Your task to perform on an android device: Open calendar and show me the first week of next month Image 0: 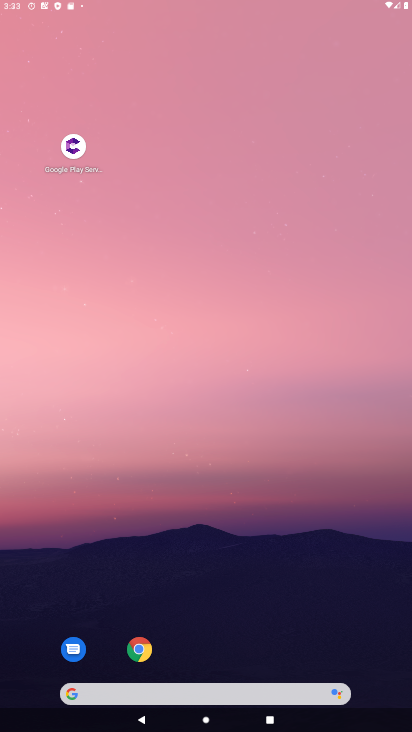
Step 0: click (388, 273)
Your task to perform on an android device: Open calendar and show me the first week of next month Image 1: 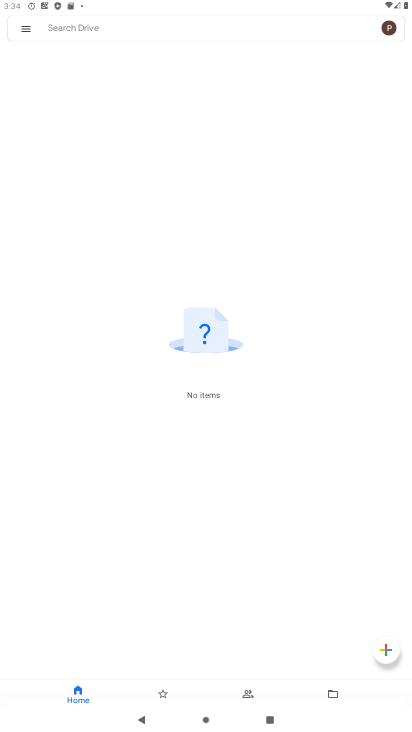
Step 1: press home button
Your task to perform on an android device: Open calendar and show me the first week of next month Image 2: 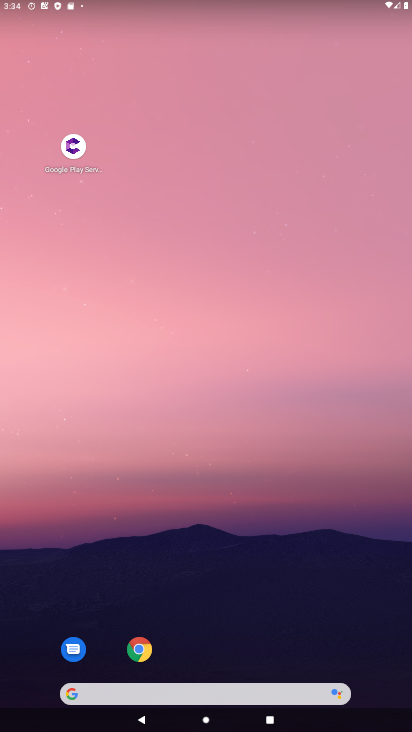
Step 2: drag from (228, 521) to (388, 6)
Your task to perform on an android device: Open calendar and show me the first week of next month Image 3: 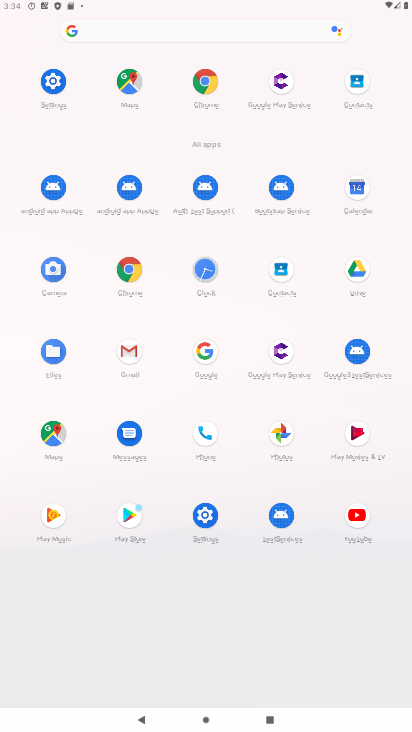
Step 3: click (362, 189)
Your task to perform on an android device: Open calendar and show me the first week of next month Image 4: 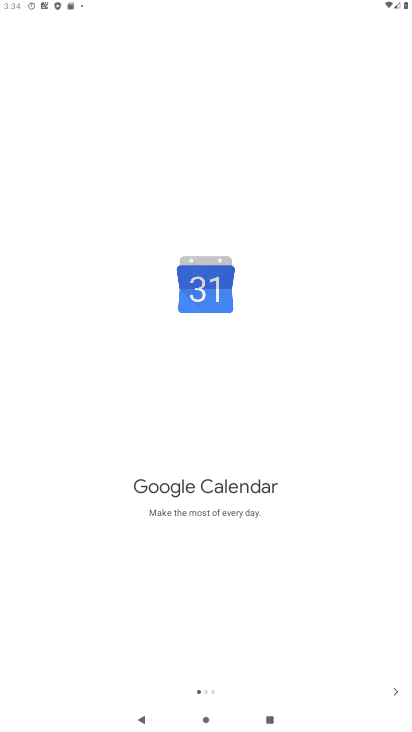
Step 4: click (394, 687)
Your task to perform on an android device: Open calendar and show me the first week of next month Image 5: 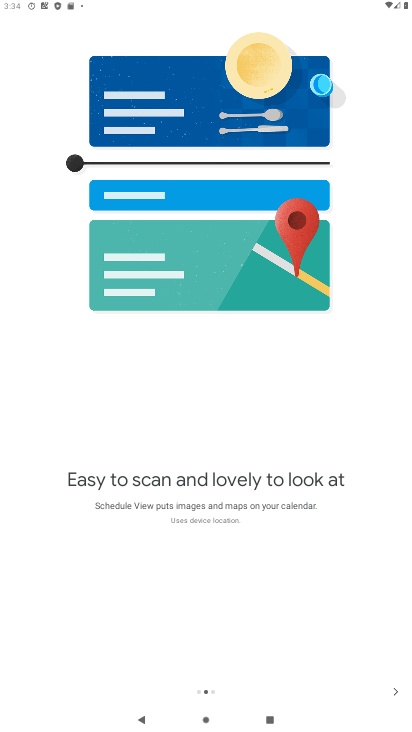
Step 5: click (391, 680)
Your task to perform on an android device: Open calendar and show me the first week of next month Image 6: 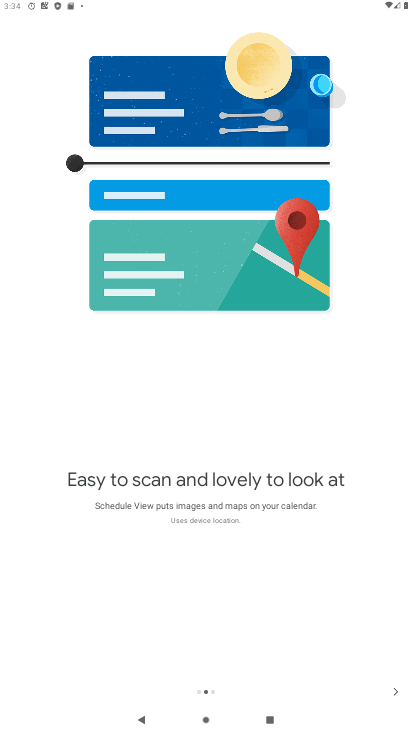
Step 6: click (387, 682)
Your task to perform on an android device: Open calendar and show me the first week of next month Image 7: 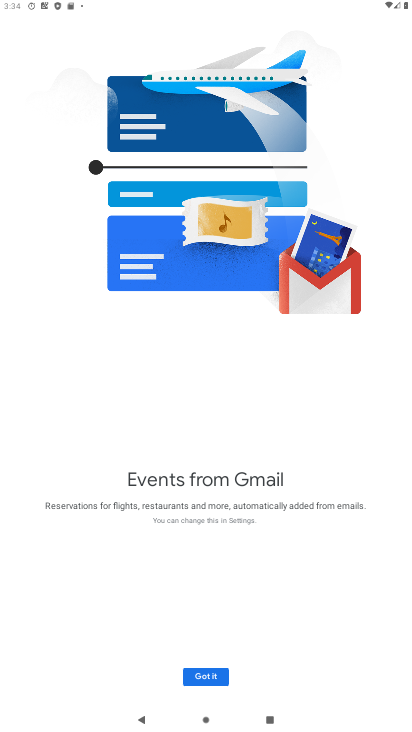
Step 7: click (219, 673)
Your task to perform on an android device: Open calendar and show me the first week of next month Image 8: 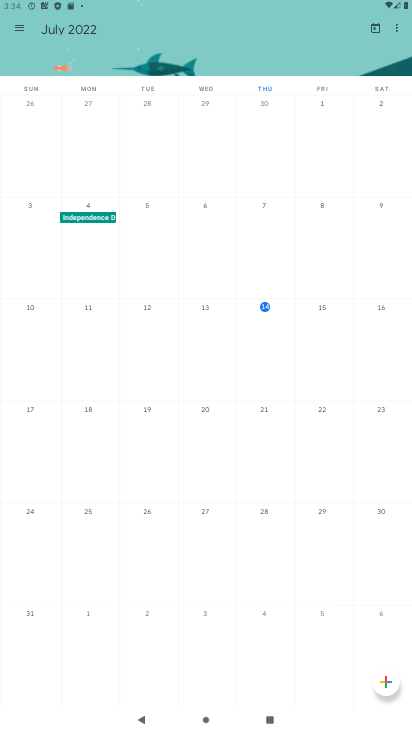
Step 8: drag from (336, 222) to (1, 44)
Your task to perform on an android device: Open calendar and show me the first week of next month Image 9: 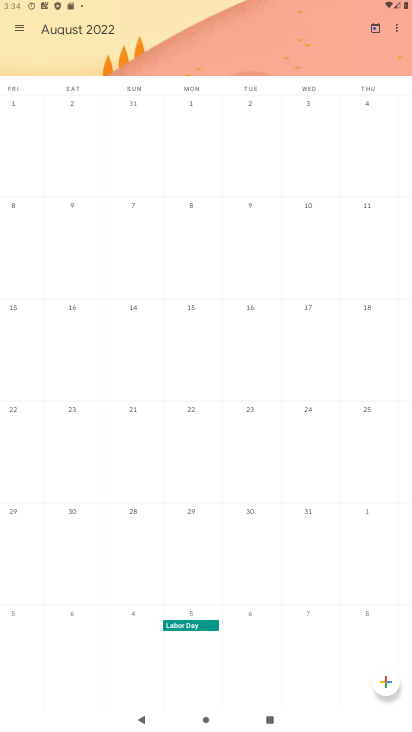
Step 9: click (15, 33)
Your task to perform on an android device: Open calendar and show me the first week of next month Image 10: 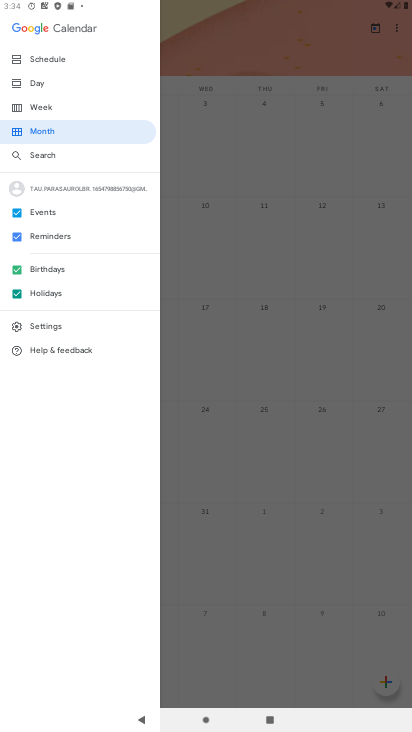
Step 10: click (55, 106)
Your task to perform on an android device: Open calendar and show me the first week of next month Image 11: 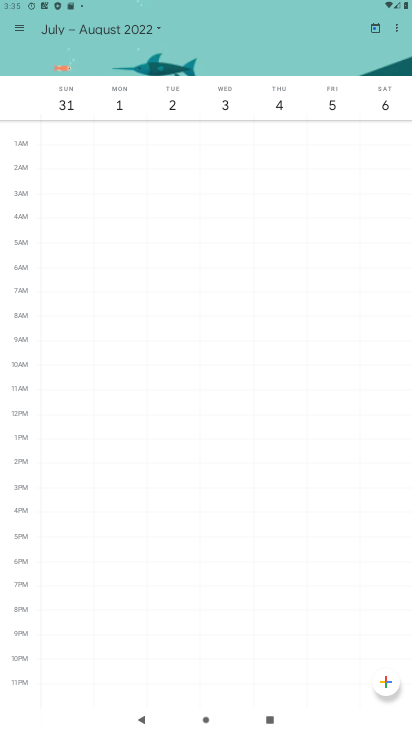
Step 11: task complete